Your task to perform on an android device: choose inbox layout in the gmail app Image 0: 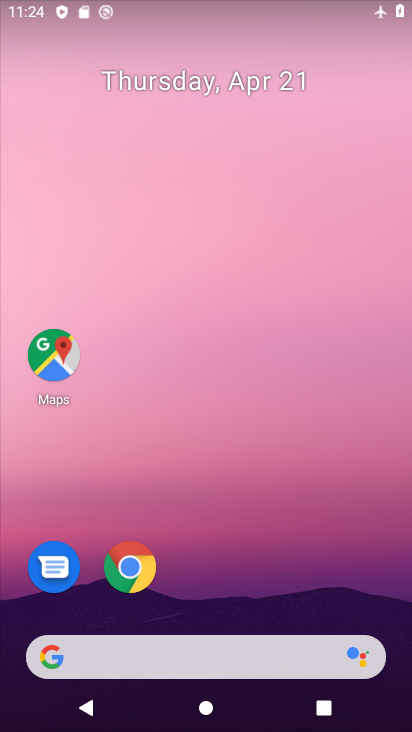
Step 0: drag from (340, 547) to (340, 178)
Your task to perform on an android device: choose inbox layout in the gmail app Image 1: 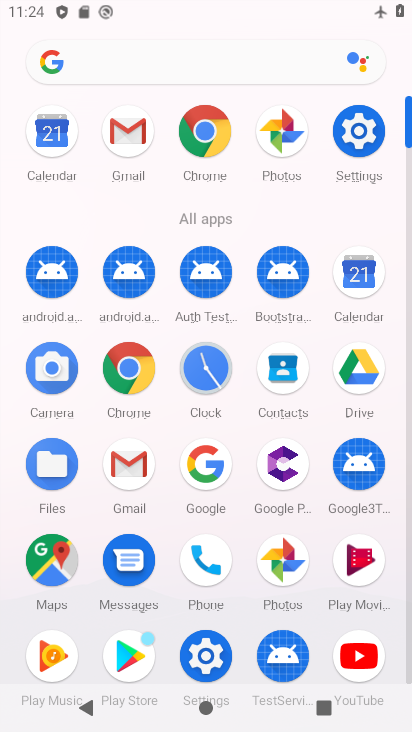
Step 1: click (123, 451)
Your task to perform on an android device: choose inbox layout in the gmail app Image 2: 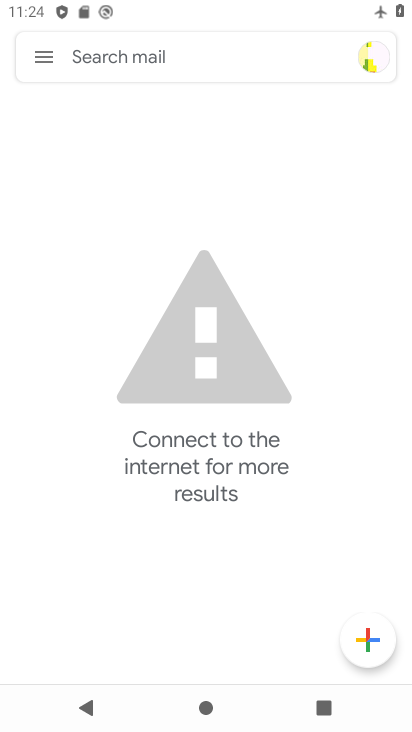
Step 2: click (51, 56)
Your task to perform on an android device: choose inbox layout in the gmail app Image 3: 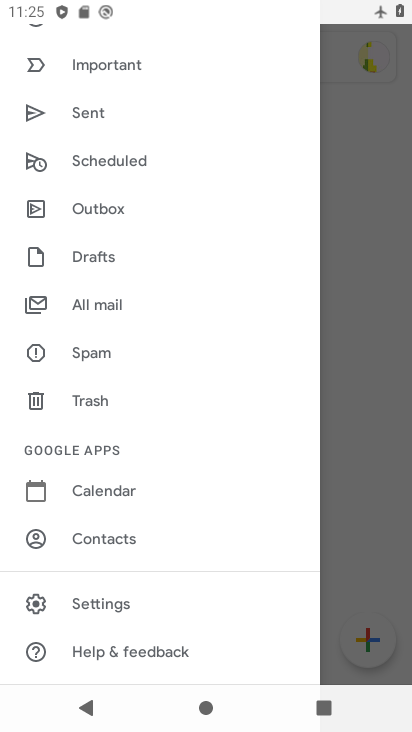
Step 3: click (101, 596)
Your task to perform on an android device: choose inbox layout in the gmail app Image 4: 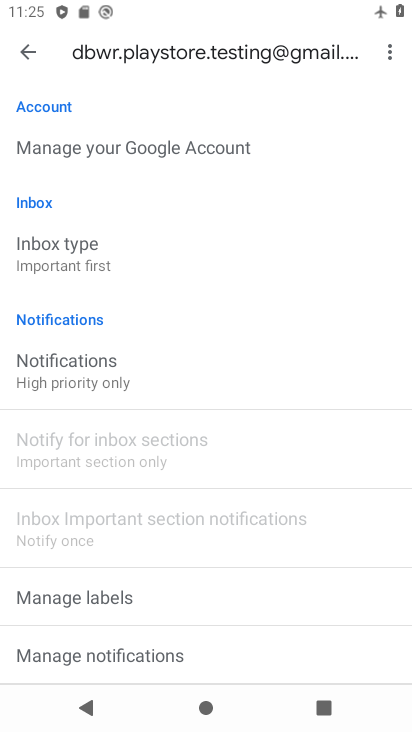
Step 4: click (80, 262)
Your task to perform on an android device: choose inbox layout in the gmail app Image 5: 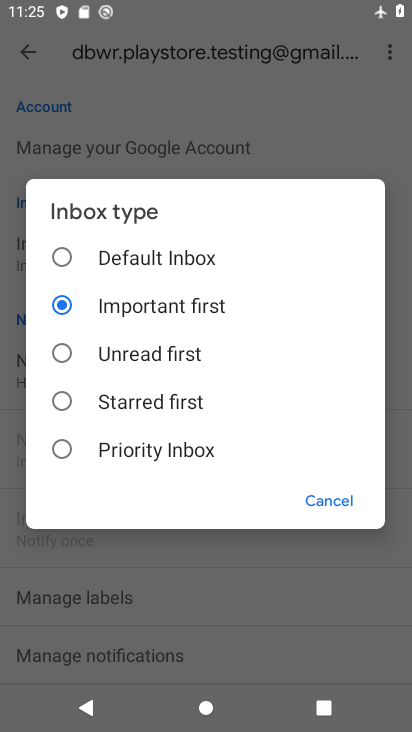
Step 5: click (139, 399)
Your task to perform on an android device: choose inbox layout in the gmail app Image 6: 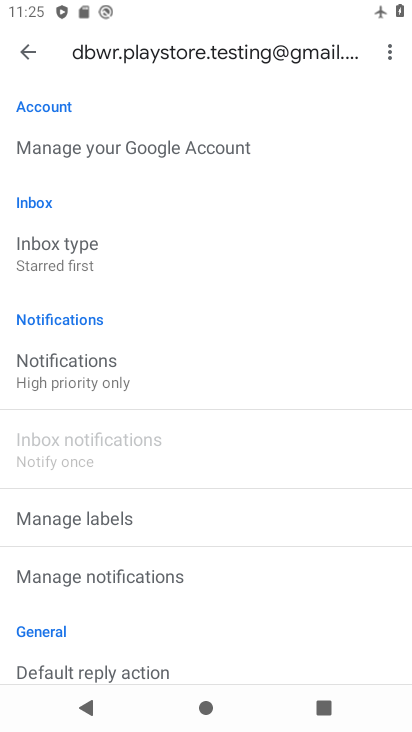
Step 6: task complete